Your task to perform on an android device: Open sound settings Image 0: 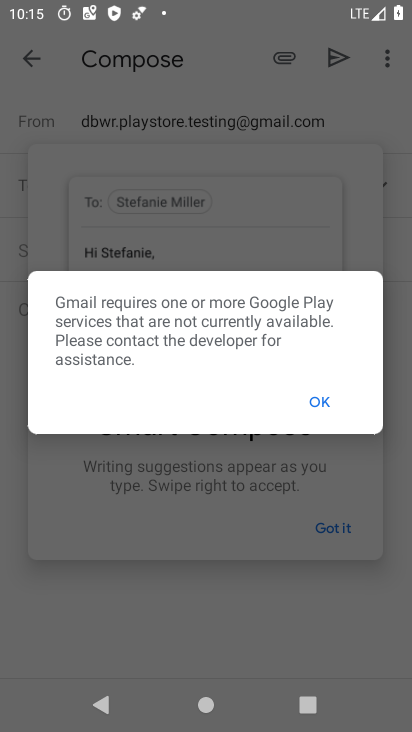
Step 0: press home button
Your task to perform on an android device: Open sound settings Image 1: 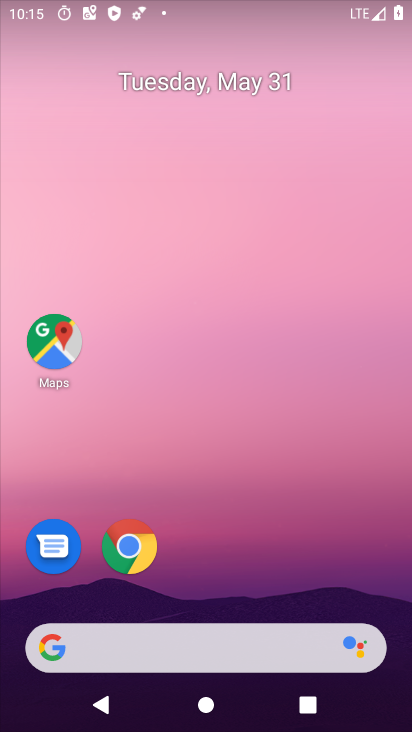
Step 1: drag from (264, 183) to (274, 65)
Your task to perform on an android device: Open sound settings Image 2: 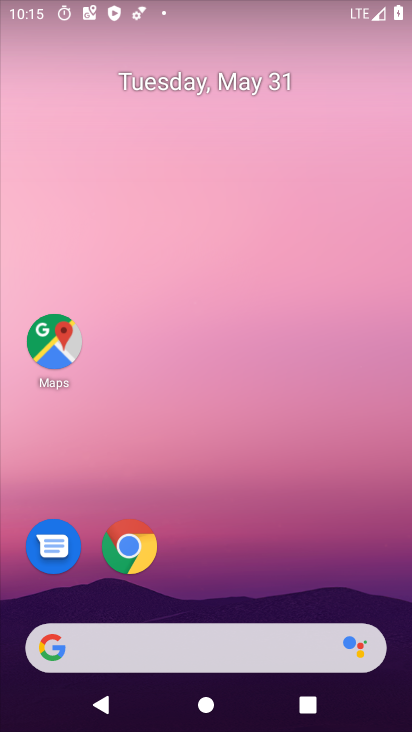
Step 2: drag from (229, 556) to (280, 19)
Your task to perform on an android device: Open sound settings Image 3: 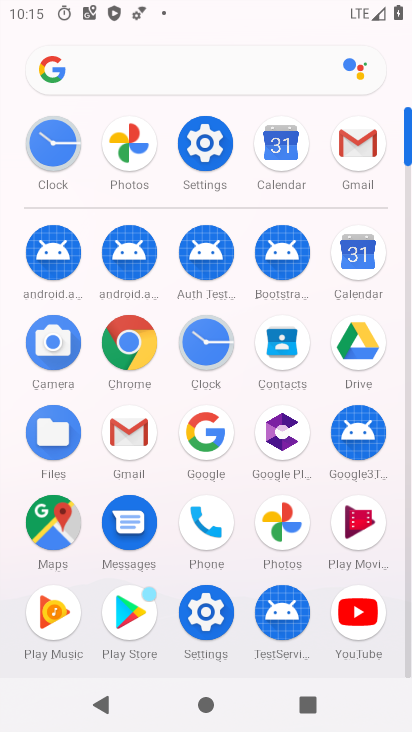
Step 3: click (209, 139)
Your task to perform on an android device: Open sound settings Image 4: 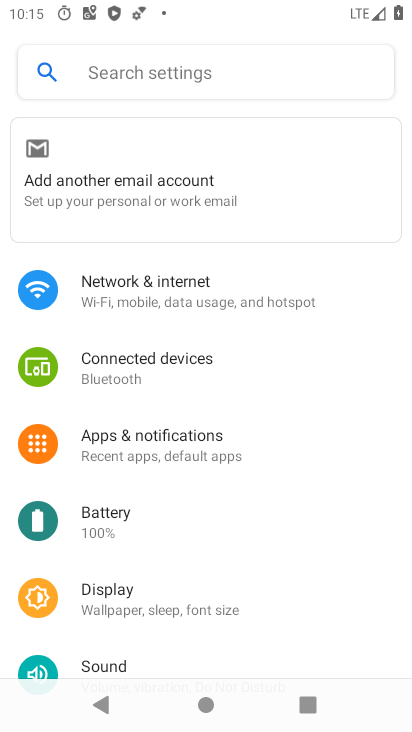
Step 4: click (147, 648)
Your task to perform on an android device: Open sound settings Image 5: 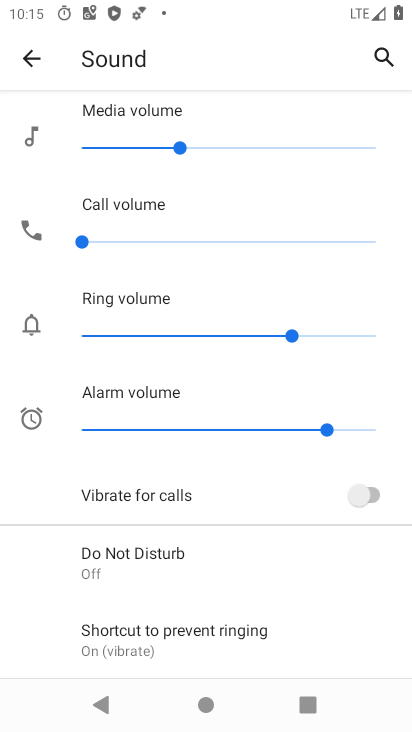
Step 5: task complete